Your task to perform on an android device: Go to ESPN.com Image 0: 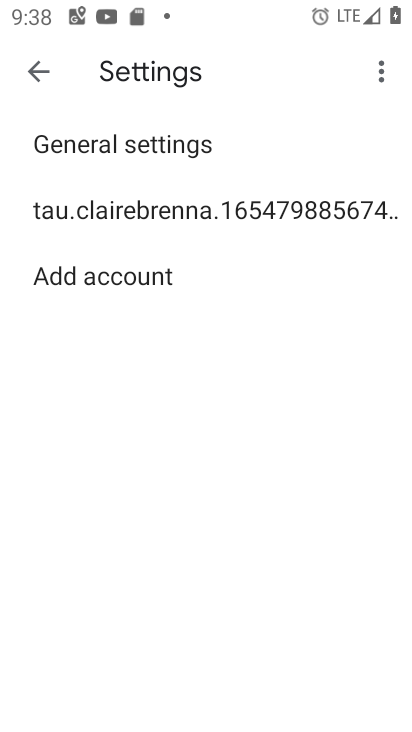
Step 0: press home button
Your task to perform on an android device: Go to ESPN.com Image 1: 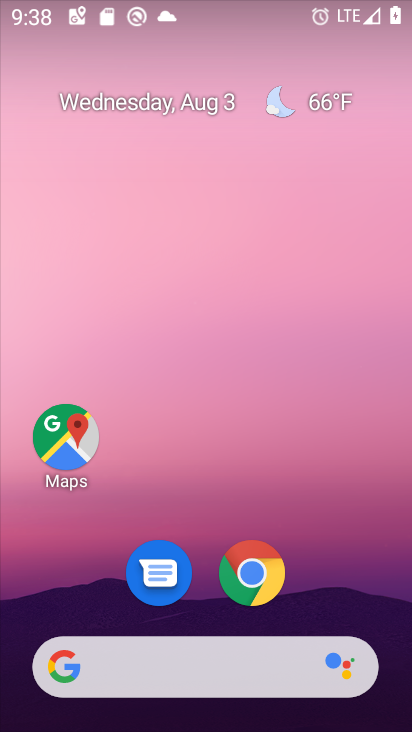
Step 1: click (259, 582)
Your task to perform on an android device: Go to ESPN.com Image 2: 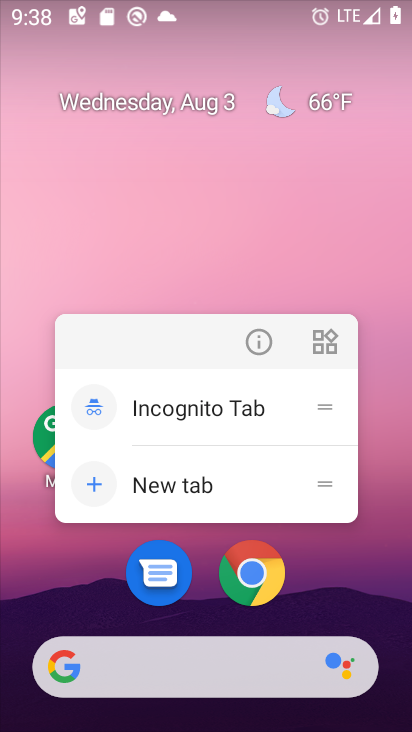
Step 2: click (259, 582)
Your task to perform on an android device: Go to ESPN.com Image 3: 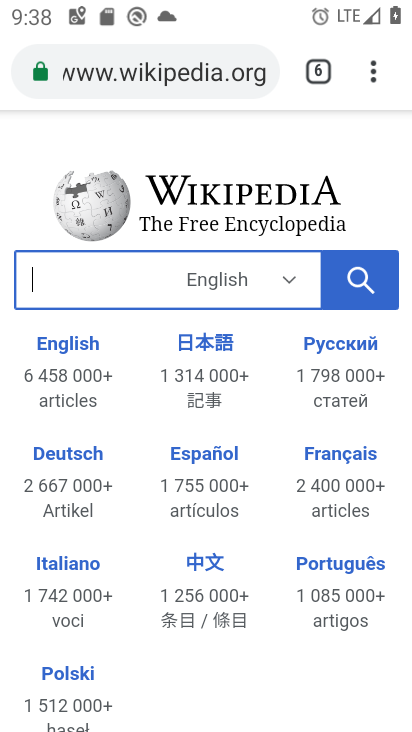
Step 3: click (236, 70)
Your task to perform on an android device: Go to ESPN.com Image 4: 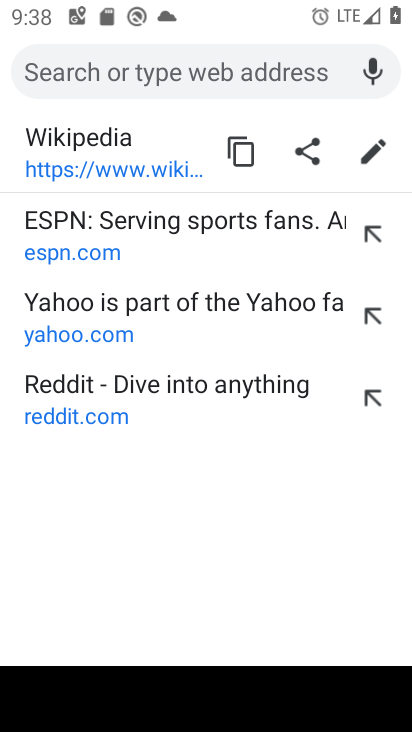
Step 4: click (68, 261)
Your task to perform on an android device: Go to ESPN.com Image 5: 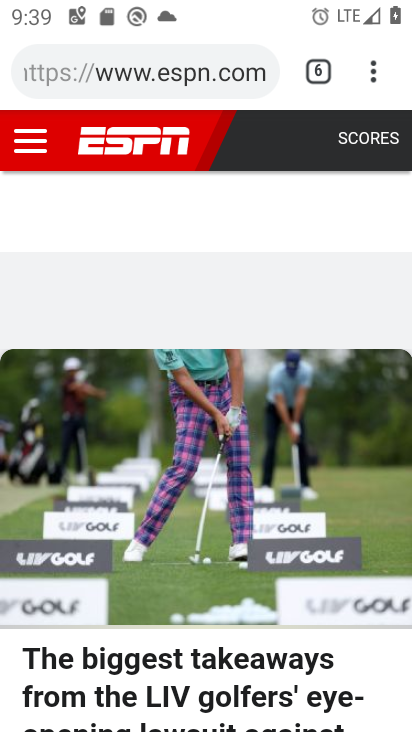
Step 5: task complete